Your task to perform on an android device: Open the web browser Image 0: 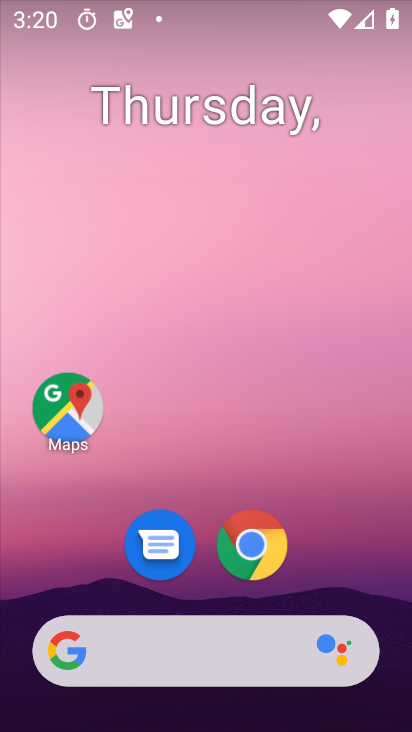
Step 0: click (252, 541)
Your task to perform on an android device: Open the web browser Image 1: 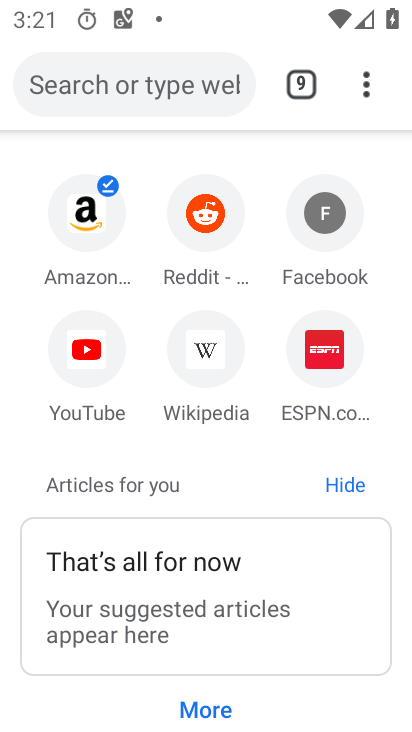
Step 1: task complete